Your task to perform on an android device: Open network settings Image 0: 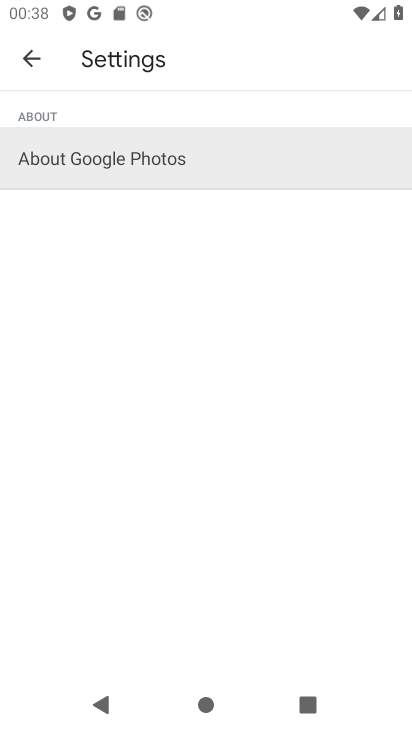
Step 0: press home button
Your task to perform on an android device: Open network settings Image 1: 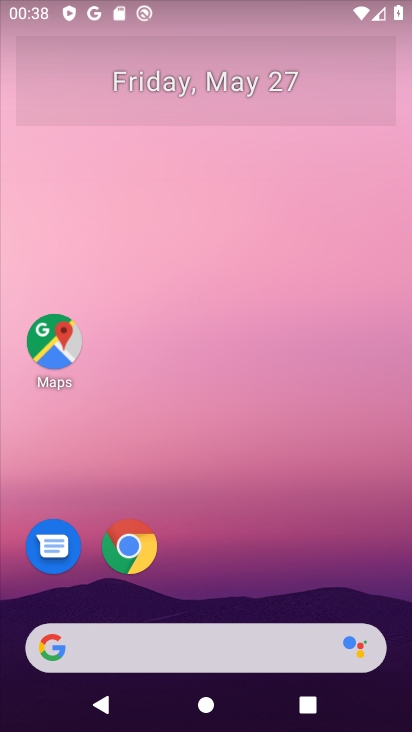
Step 1: drag from (324, 594) to (355, 79)
Your task to perform on an android device: Open network settings Image 2: 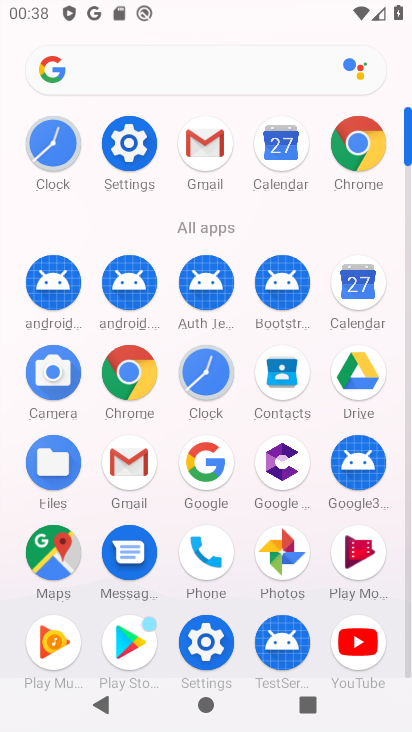
Step 2: click (215, 655)
Your task to perform on an android device: Open network settings Image 3: 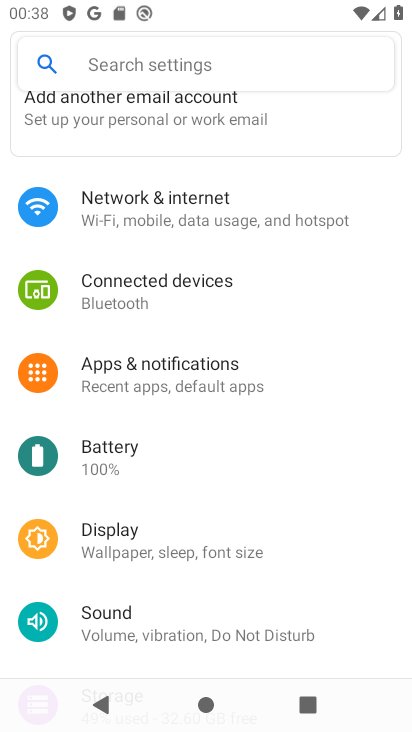
Step 3: drag from (237, 313) to (233, 234)
Your task to perform on an android device: Open network settings Image 4: 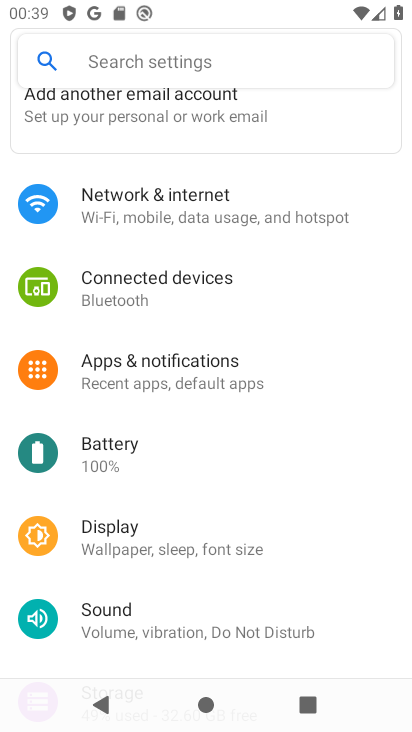
Step 4: click (180, 206)
Your task to perform on an android device: Open network settings Image 5: 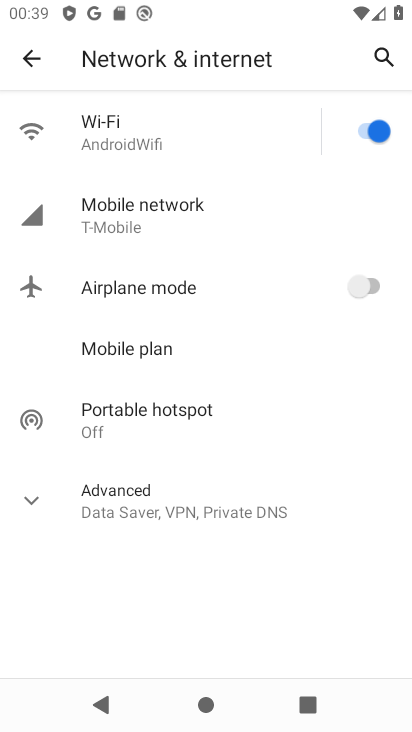
Step 5: click (213, 222)
Your task to perform on an android device: Open network settings Image 6: 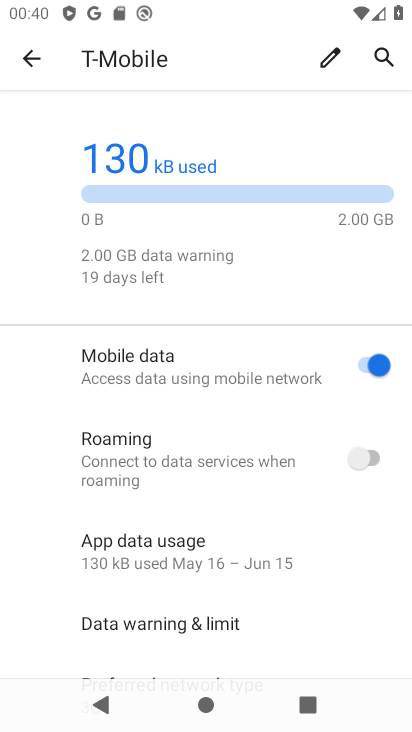
Step 6: task complete